Your task to perform on an android device: toggle javascript in the chrome app Image 0: 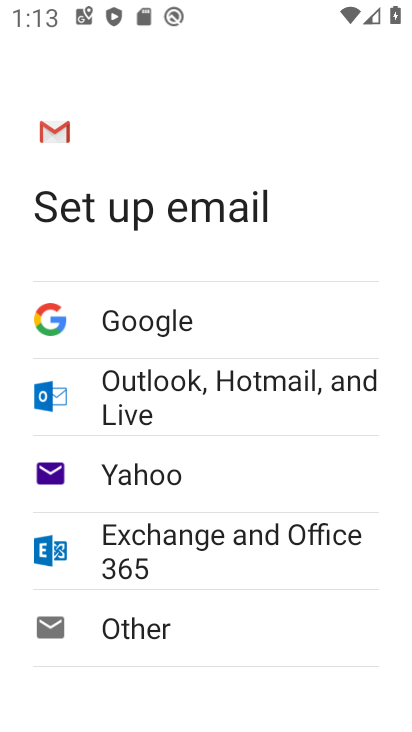
Step 0: press back button
Your task to perform on an android device: toggle javascript in the chrome app Image 1: 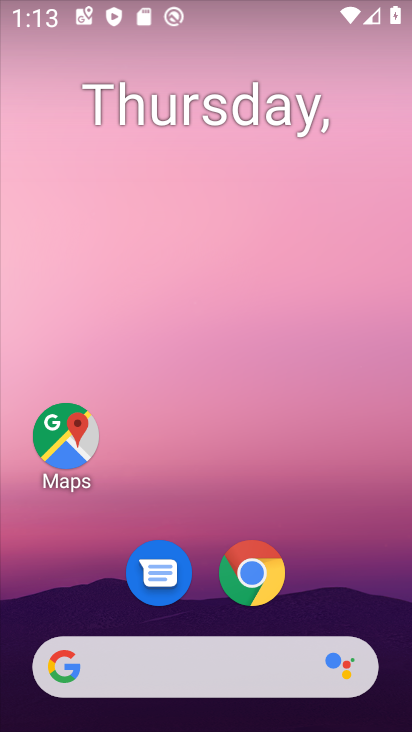
Step 1: drag from (311, 615) to (259, 98)
Your task to perform on an android device: toggle javascript in the chrome app Image 2: 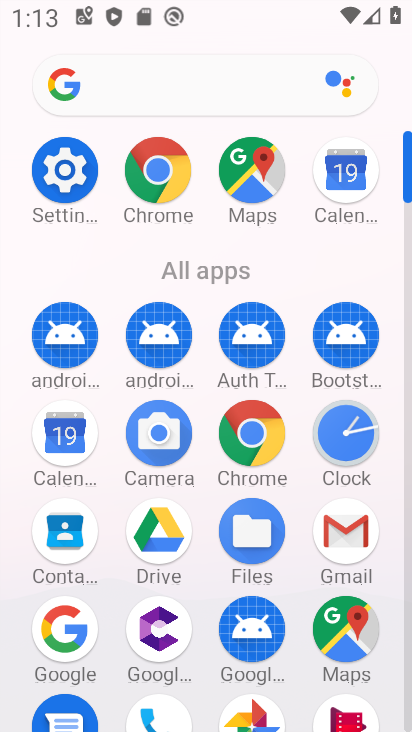
Step 2: click (157, 165)
Your task to perform on an android device: toggle javascript in the chrome app Image 3: 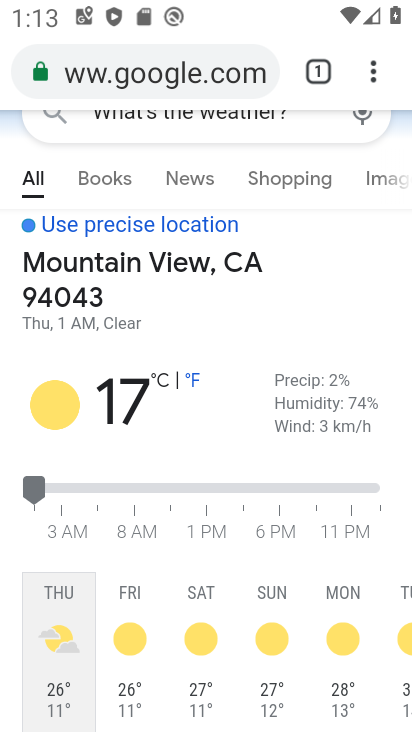
Step 3: drag from (380, 73) to (159, 568)
Your task to perform on an android device: toggle javascript in the chrome app Image 4: 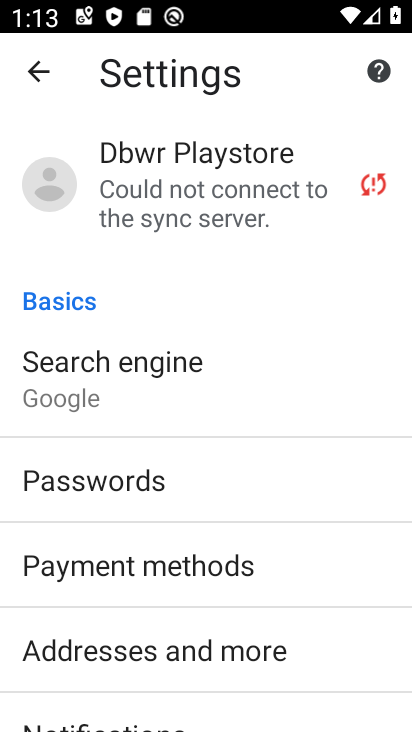
Step 4: drag from (196, 531) to (227, 228)
Your task to perform on an android device: toggle javascript in the chrome app Image 5: 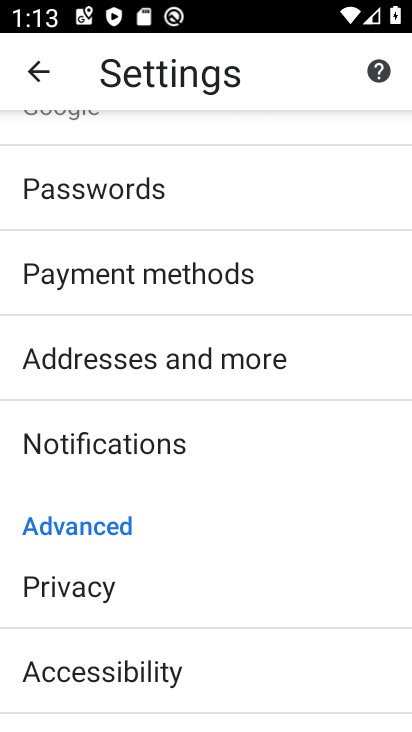
Step 5: drag from (232, 592) to (247, 216)
Your task to perform on an android device: toggle javascript in the chrome app Image 6: 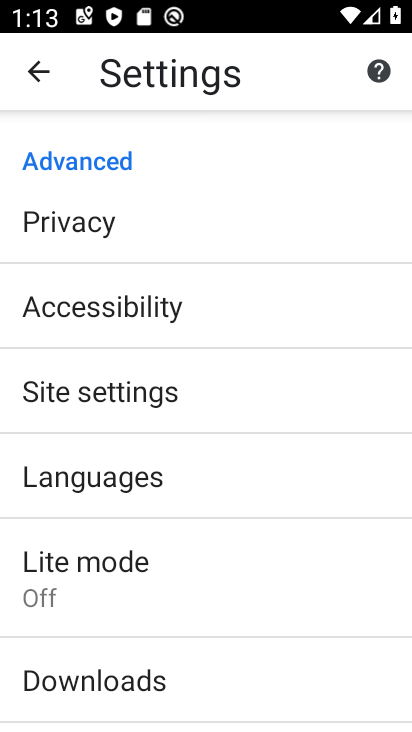
Step 6: click (138, 390)
Your task to perform on an android device: toggle javascript in the chrome app Image 7: 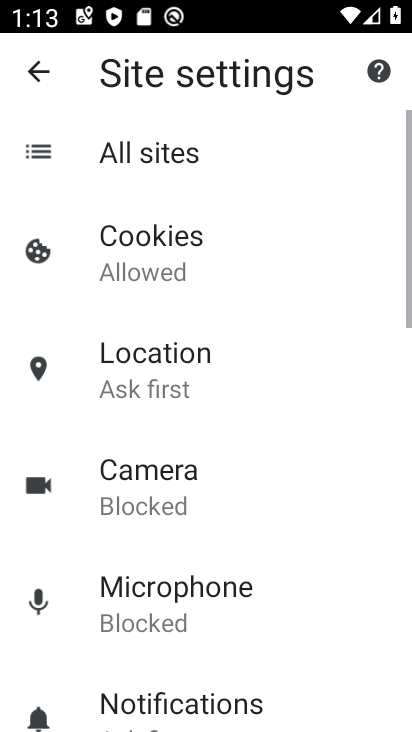
Step 7: drag from (231, 564) to (255, 166)
Your task to perform on an android device: toggle javascript in the chrome app Image 8: 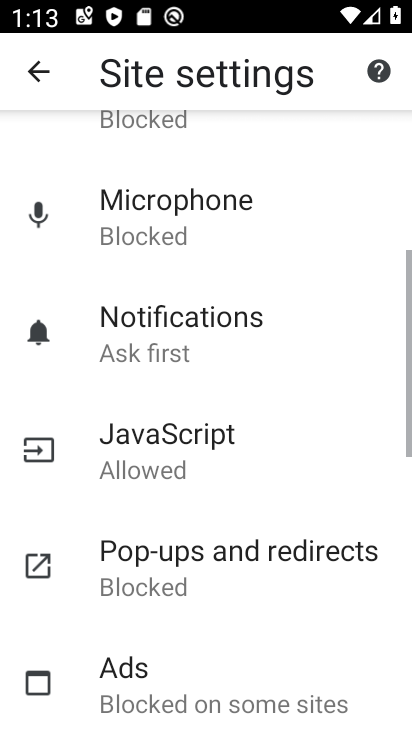
Step 8: drag from (247, 284) to (229, 730)
Your task to perform on an android device: toggle javascript in the chrome app Image 9: 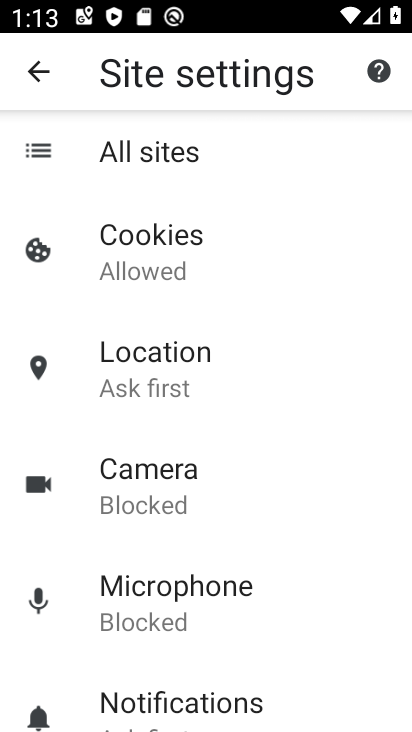
Step 9: click (170, 258)
Your task to perform on an android device: toggle javascript in the chrome app Image 10: 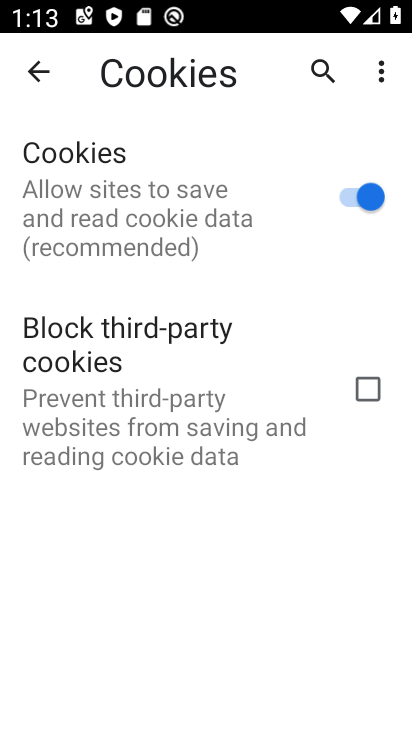
Step 10: click (51, 74)
Your task to perform on an android device: toggle javascript in the chrome app Image 11: 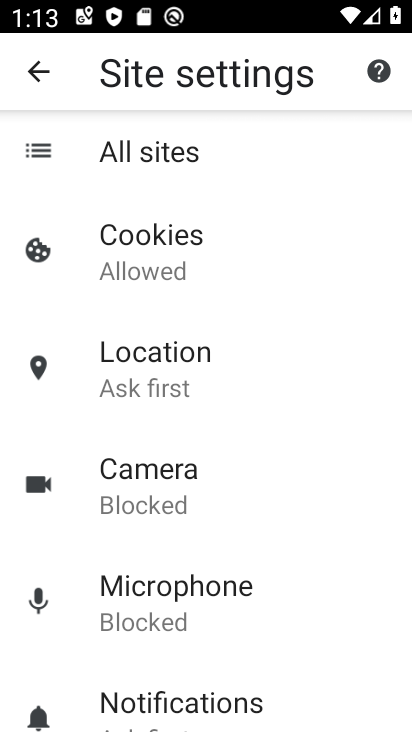
Step 11: drag from (227, 655) to (251, 254)
Your task to perform on an android device: toggle javascript in the chrome app Image 12: 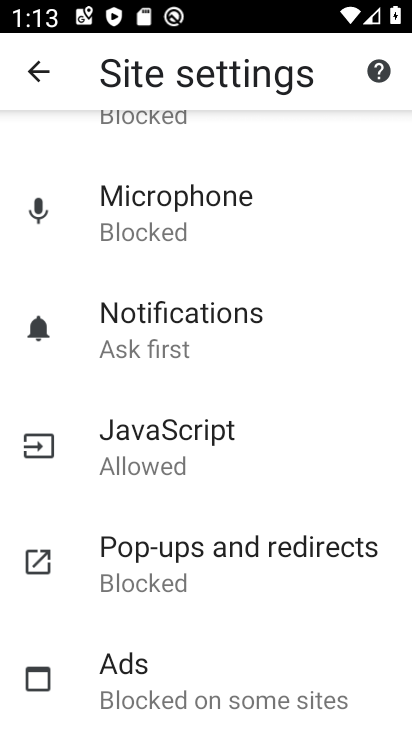
Step 12: click (215, 425)
Your task to perform on an android device: toggle javascript in the chrome app Image 13: 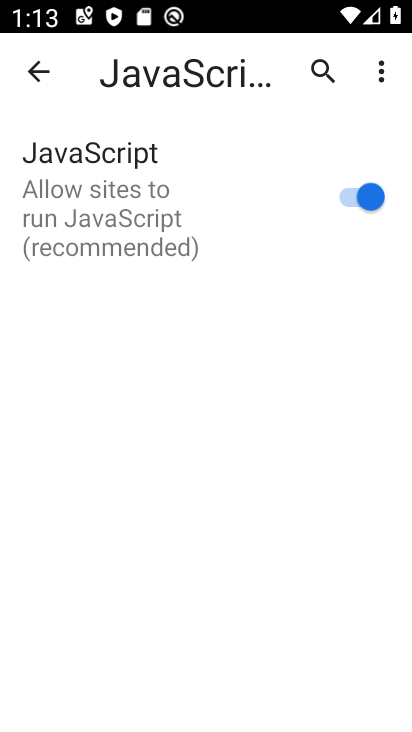
Step 13: click (333, 190)
Your task to perform on an android device: toggle javascript in the chrome app Image 14: 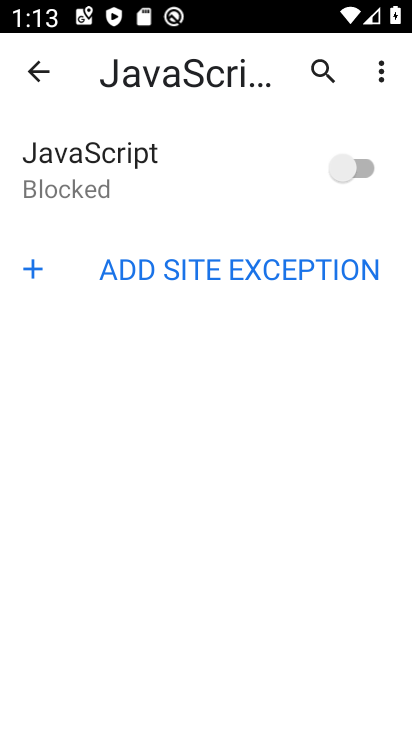
Step 14: task complete